Your task to perform on an android device: install app "NewsBreak: Local News & Alerts" Image 0: 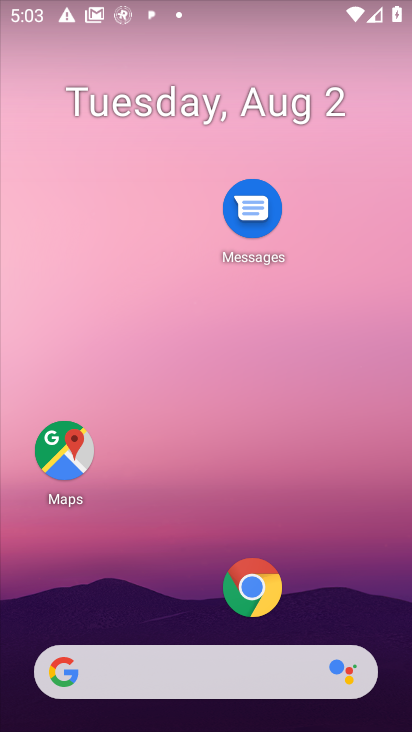
Step 0: drag from (167, 586) to (176, 168)
Your task to perform on an android device: install app "NewsBreak: Local News & Alerts" Image 1: 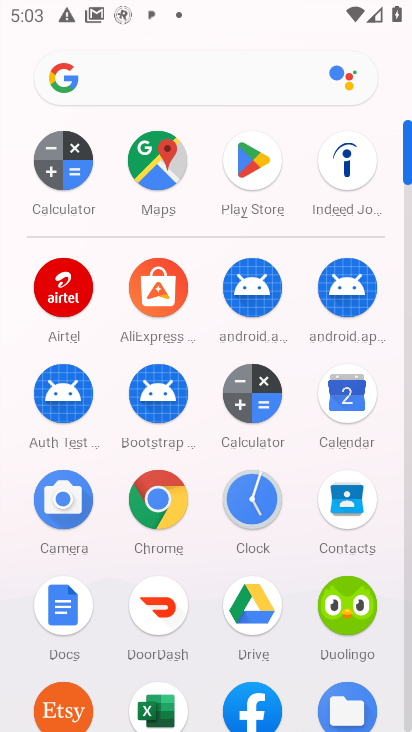
Step 1: click (238, 165)
Your task to perform on an android device: install app "NewsBreak: Local News & Alerts" Image 2: 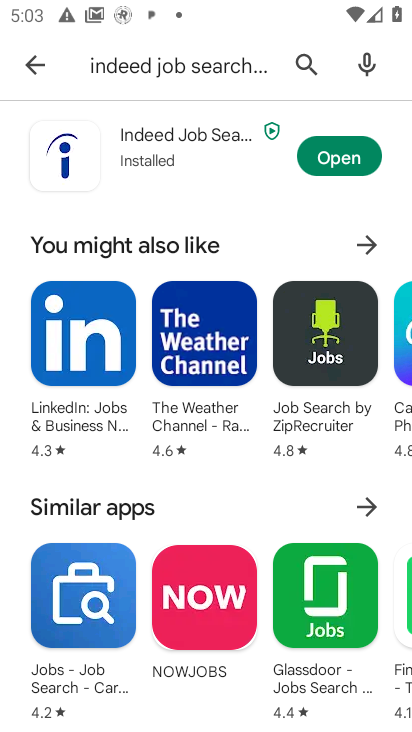
Step 2: click (303, 66)
Your task to perform on an android device: install app "NewsBreak: Local News & Alerts" Image 3: 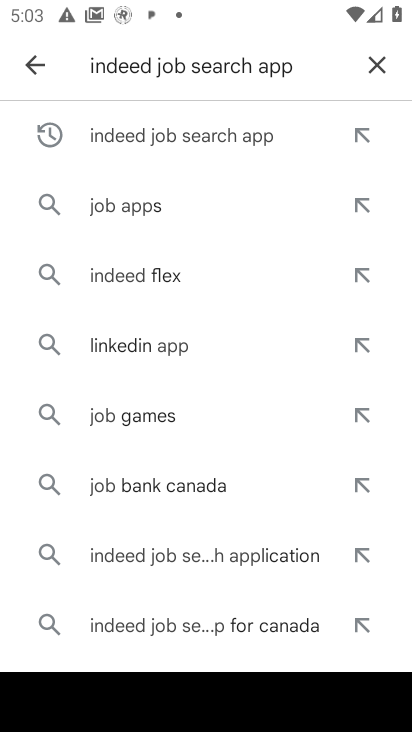
Step 3: click (363, 65)
Your task to perform on an android device: install app "NewsBreak: Local News & Alerts" Image 4: 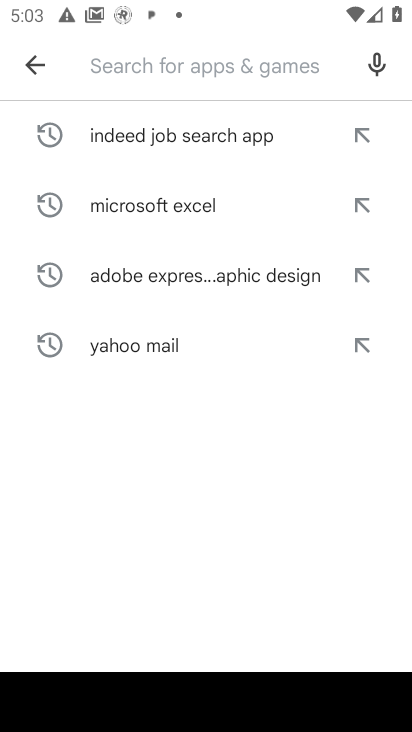
Step 4: type "NewsBreak: Local News & Alerts"
Your task to perform on an android device: install app "NewsBreak: Local News & Alerts" Image 5: 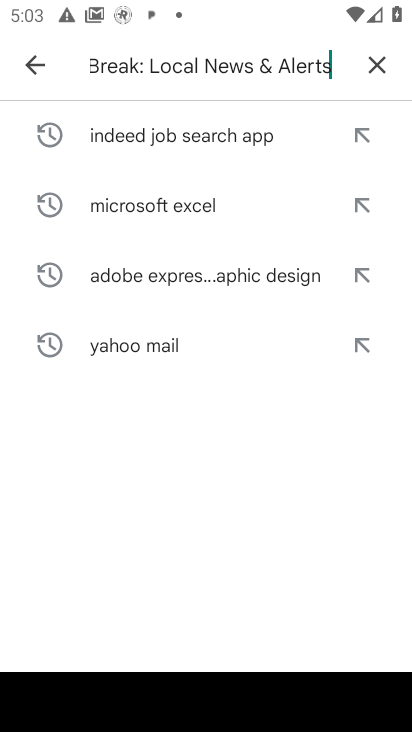
Step 5: type ""
Your task to perform on an android device: install app "NewsBreak: Local News & Alerts" Image 6: 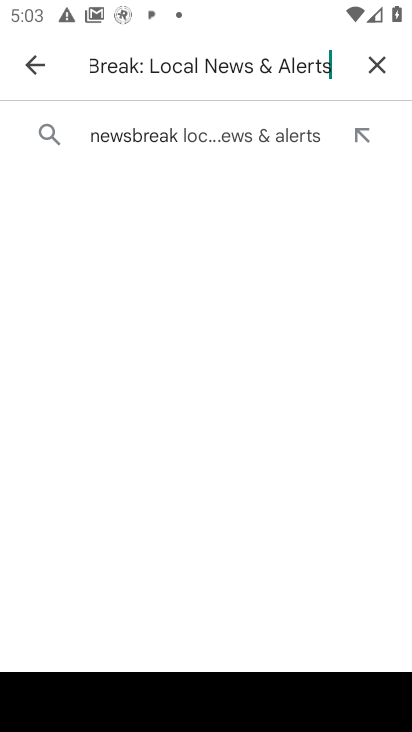
Step 6: click (135, 139)
Your task to perform on an android device: install app "NewsBreak: Local News & Alerts" Image 7: 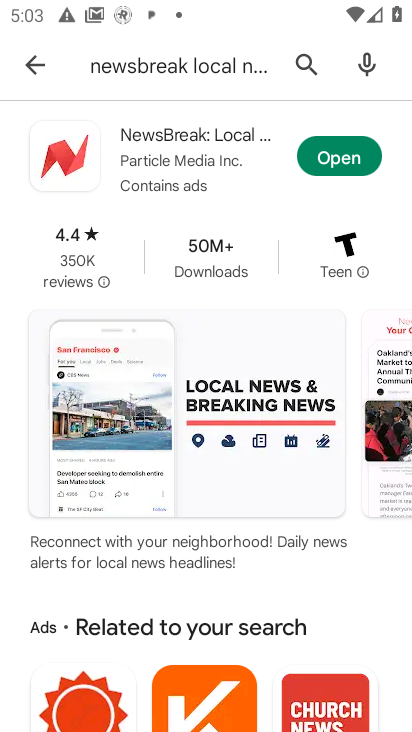
Step 7: task complete